Your task to perform on an android device: delete browsing data in the chrome app Image 0: 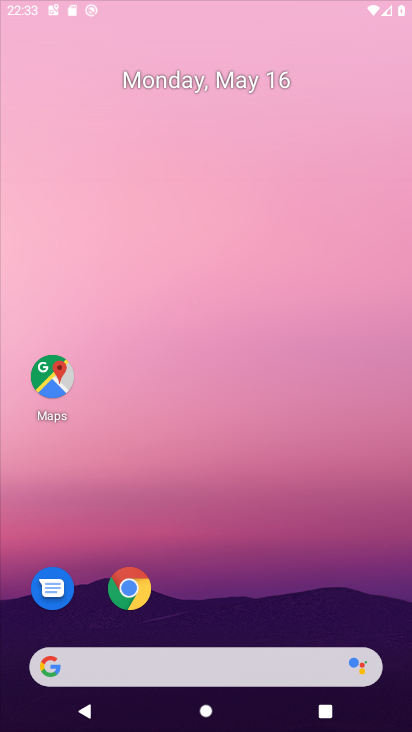
Step 0: press home button
Your task to perform on an android device: delete browsing data in the chrome app Image 1: 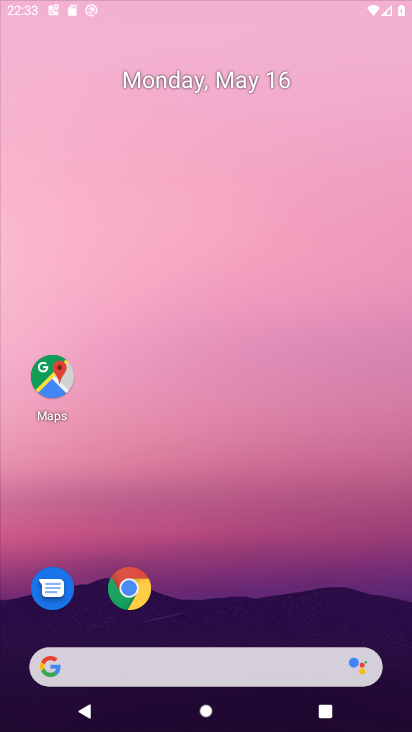
Step 1: press home button
Your task to perform on an android device: delete browsing data in the chrome app Image 2: 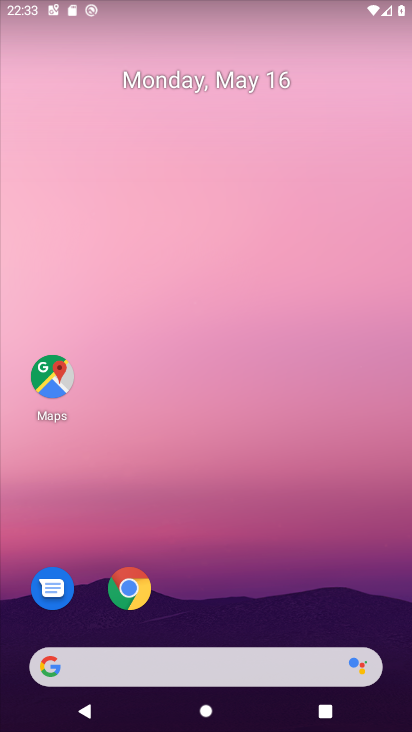
Step 2: click (130, 585)
Your task to perform on an android device: delete browsing data in the chrome app Image 3: 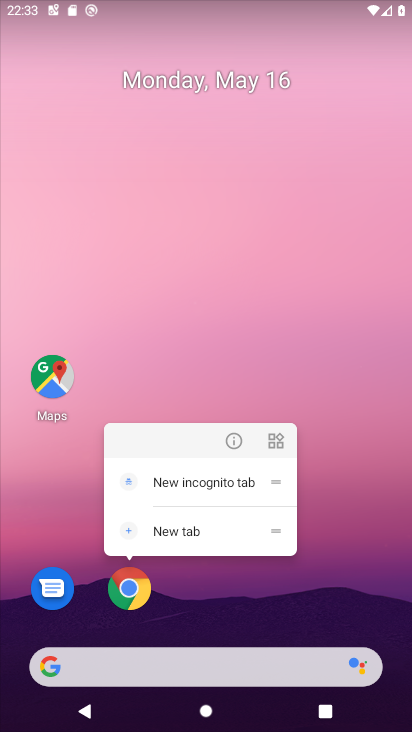
Step 3: click (125, 586)
Your task to perform on an android device: delete browsing data in the chrome app Image 4: 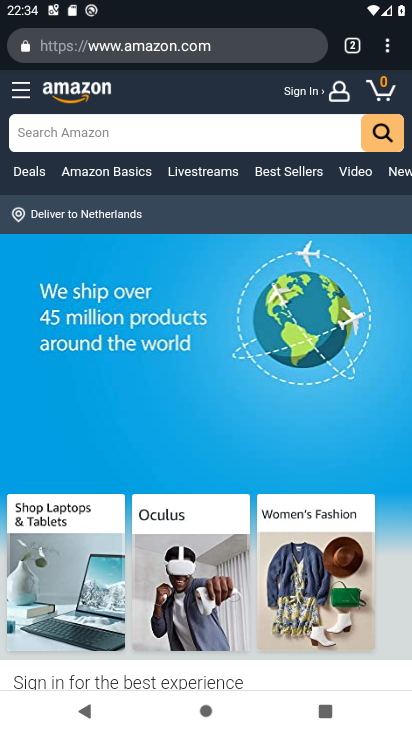
Step 4: click (386, 42)
Your task to perform on an android device: delete browsing data in the chrome app Image 5: 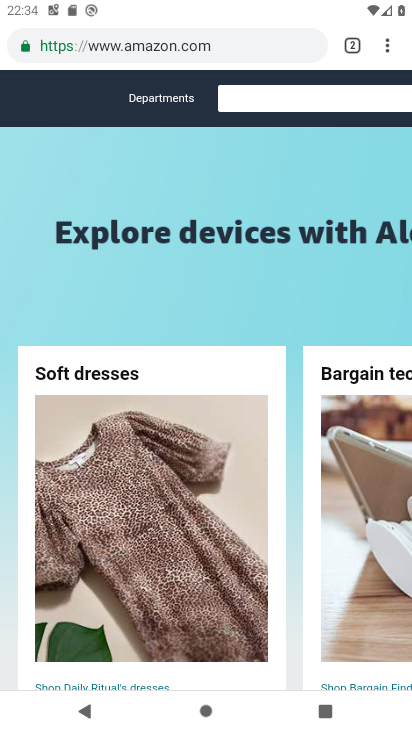
Step 5: click (389, 42)
Your task to perform on an android device: delete browsing data in the chrome app Image 6: 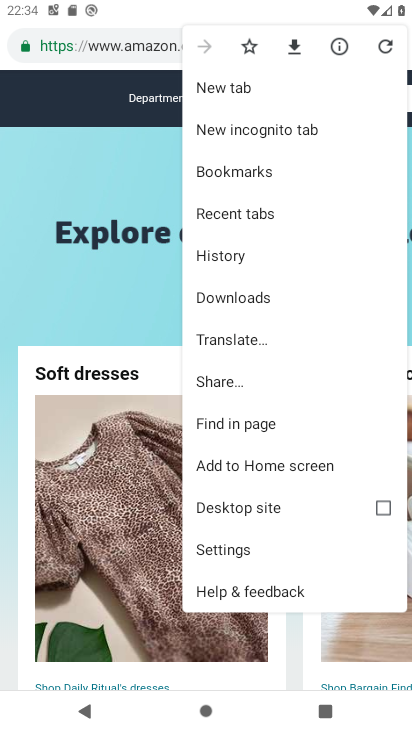
Step 6: click (251, 247)
Your task to perform on an android device: delete browsing data in the chrome app Image 7: 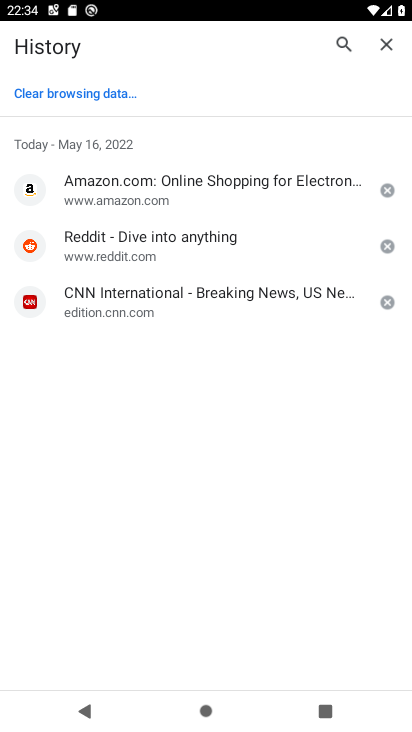
Step 7: click (68, 91)
Your task to perform on an android device: delete browsing data in the chrome app Image 8: 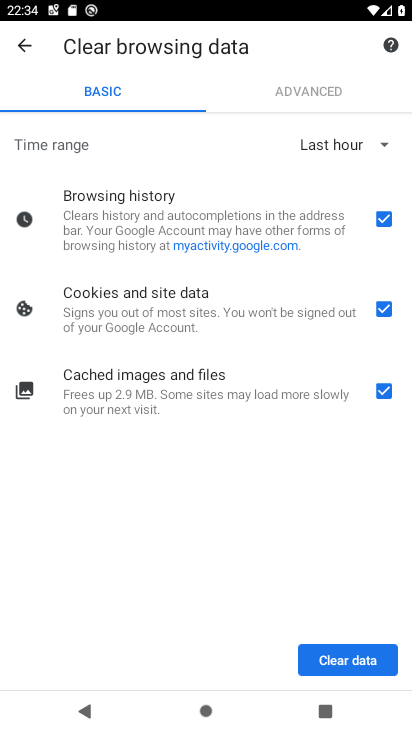
Step 8: click (384, 141)
Your task to perform on an android device: delete browsing data in the chrome app Image 9: 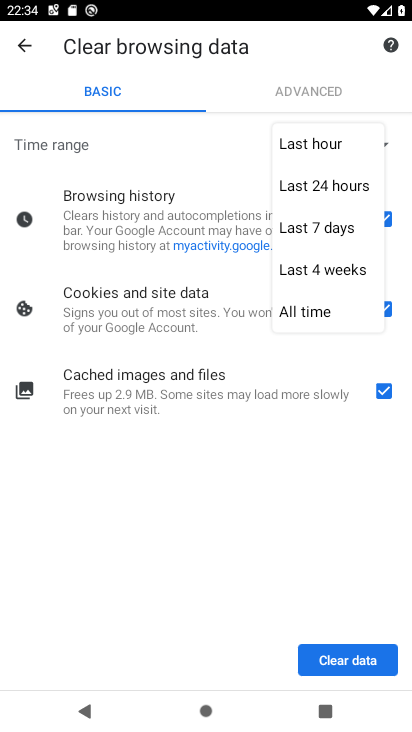
Step 9: click (323, 314)
Your task to perform on an android device: delete browsing data in the chrome app Image 10: 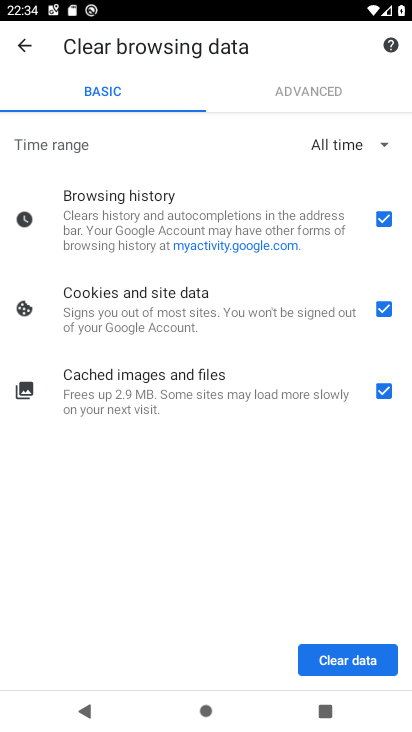
Step 10: click (355, 662)
Your task to perform on an android device: delete browsing data in the chrome app Image 11: 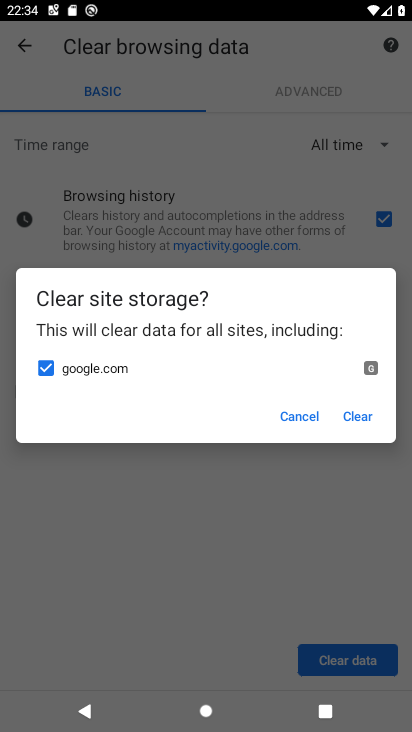
Step 11: click (358, 415)
Your task to perform on an android device: delete browsing data in the chrome app Image 12: 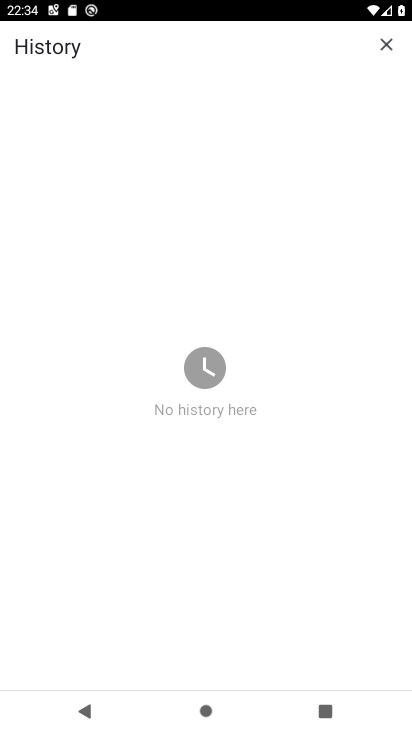
Step 12: task complete